Your task to perform on an android device: Clear the shopping cart on target. Image 0: 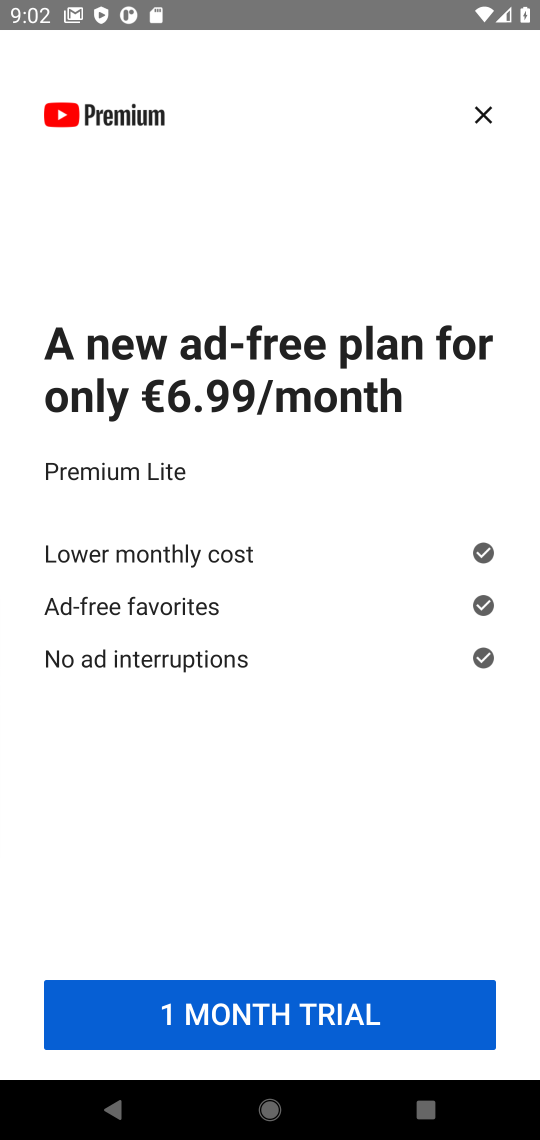
Step 0: press home button
Your task to perform on an android device: Clear the shopping cart on target. Image 1: 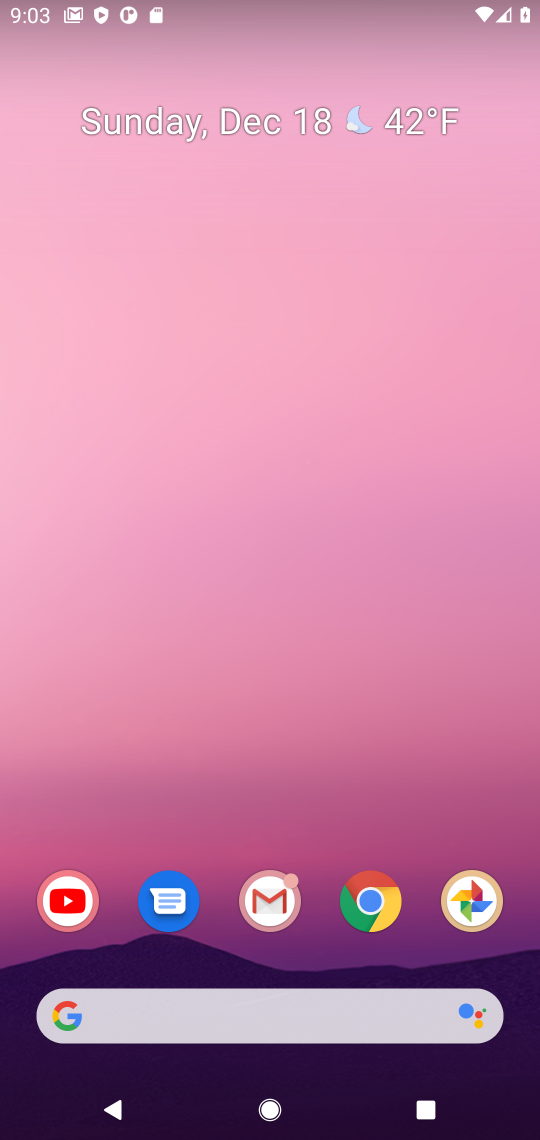
Step 1: click (384, 891)
Your task to perform on an android device: Clear the shopping cart on target. Image 2: 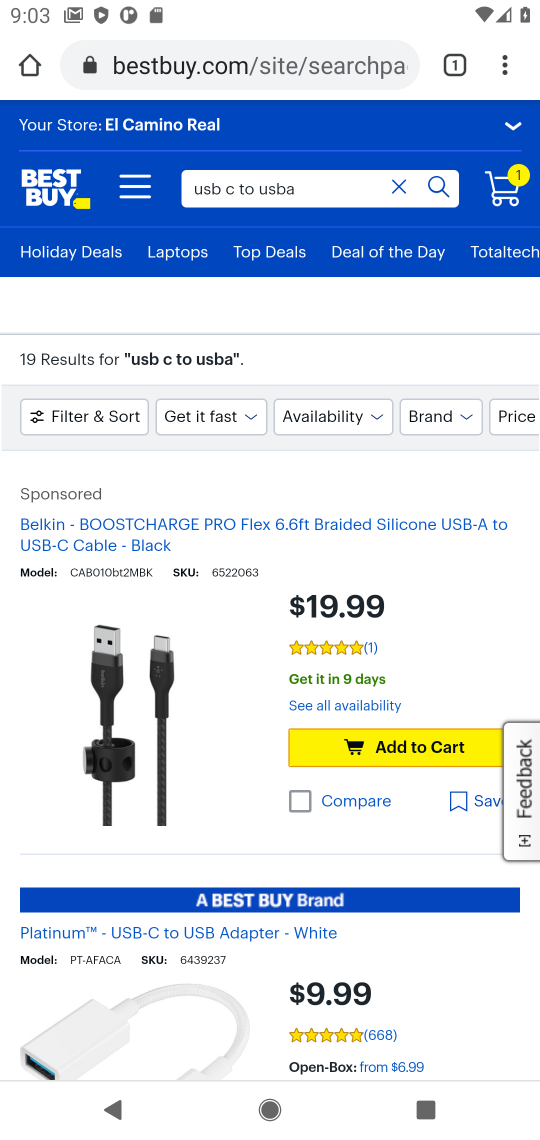
Step 2: click (187, 70)
Your task to perform on an android device: Clear the shopping cart on target. Image 3: 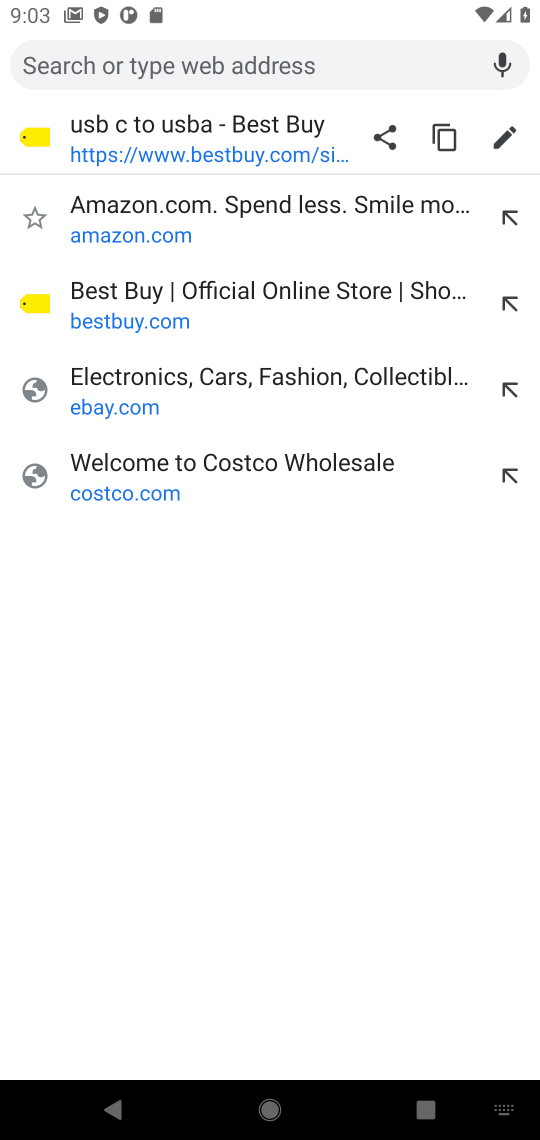
Step 3: type "target"
Your task to perform on an android device: Clear the shopping cart on target. Image 4: 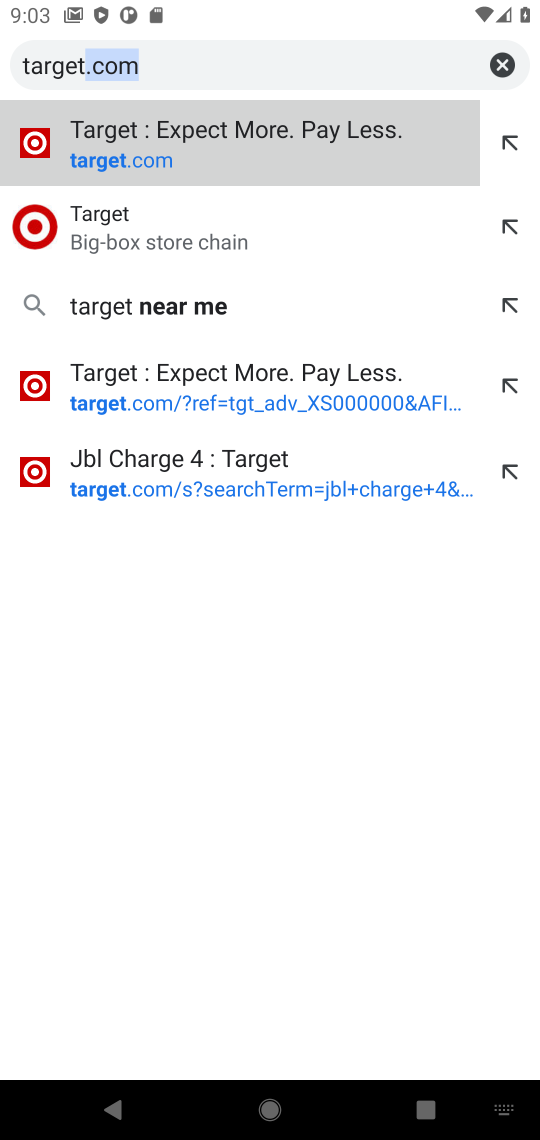
Step 4: click (105, 137)
Your task to perform on an android device: Clear the shopping cart on target. Image 5: 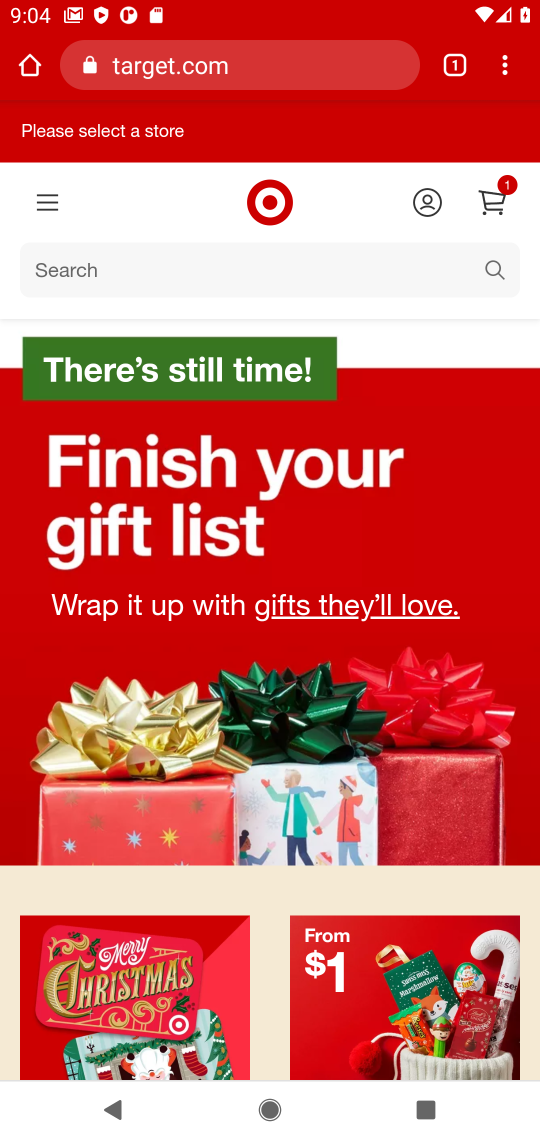
Step 5: click (151, 260)
Your task to perform on an android device: Clear the shopping cart on target. Image 6: 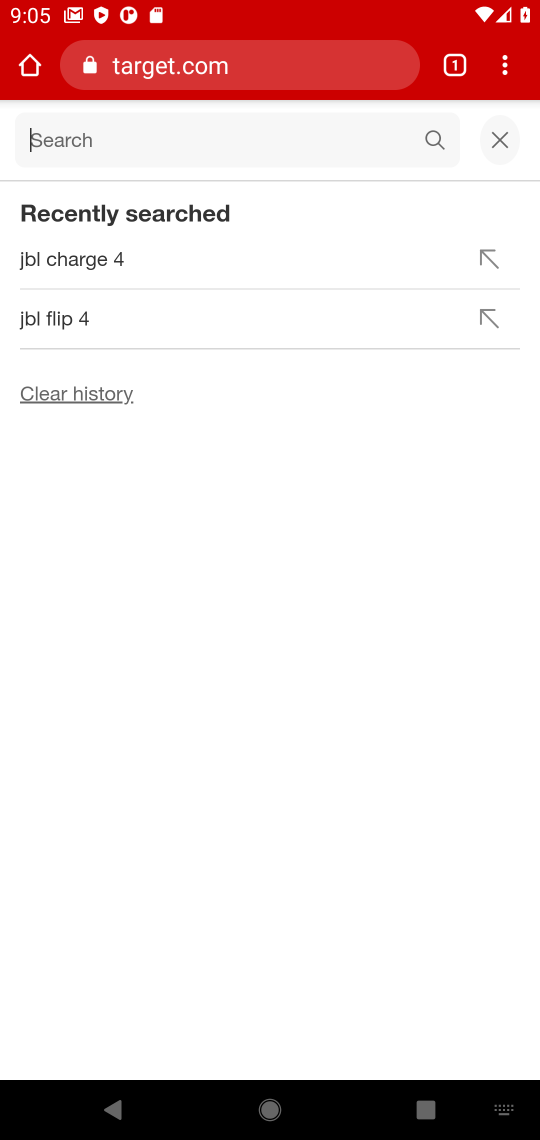
Step 6: click (483, 132)
Your task to perform on an android device: Clear the shopping cart on target. Image 7: 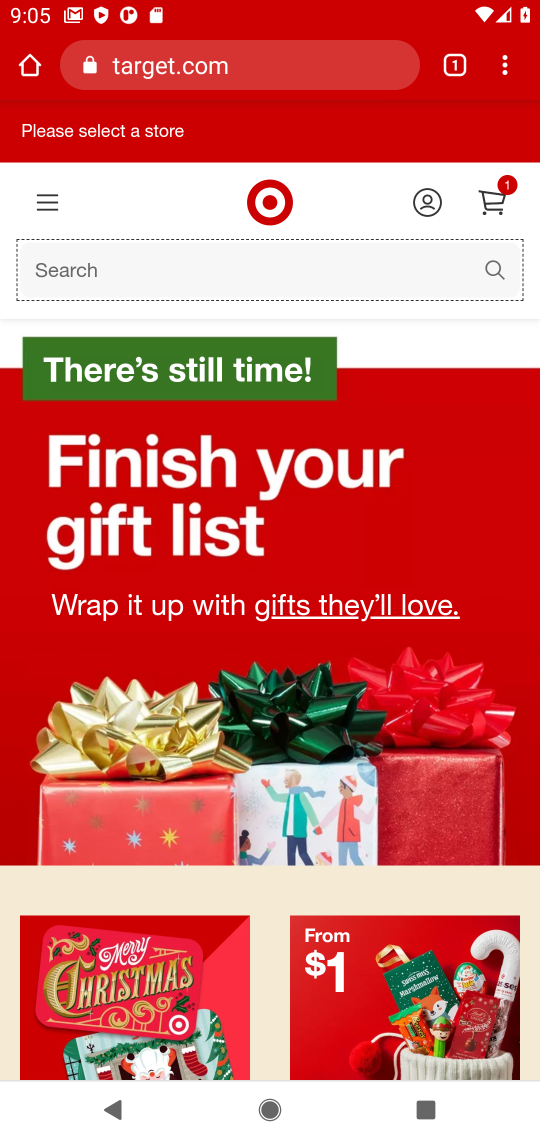
Step 7: click (496, 195)
Your task to perform on an android device: Clear the shopping cart on target. Image 8: 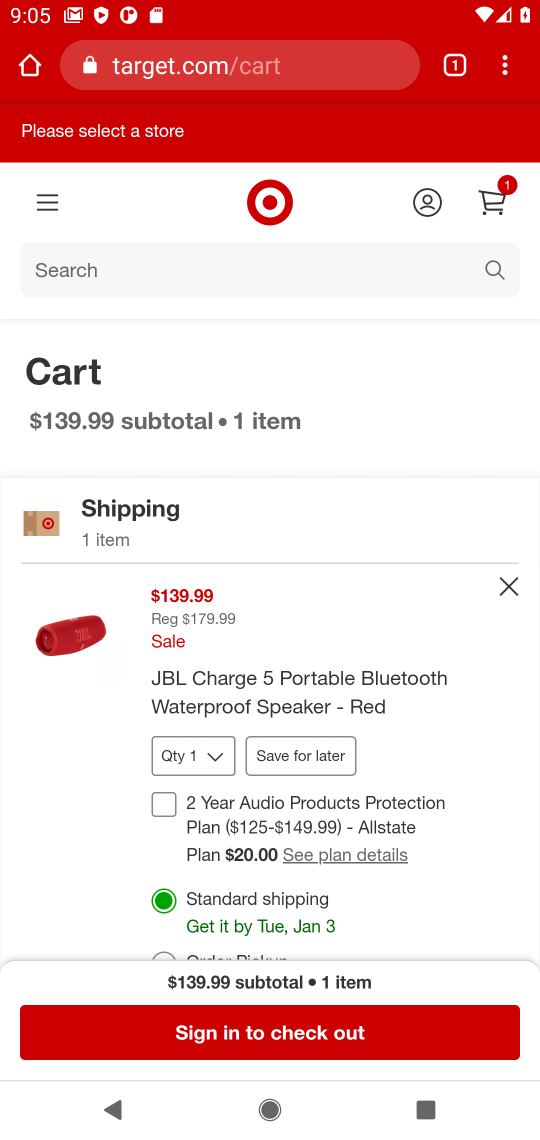
Step 8: task complete